Your task to perform on an android device: show emergency info Image 0: 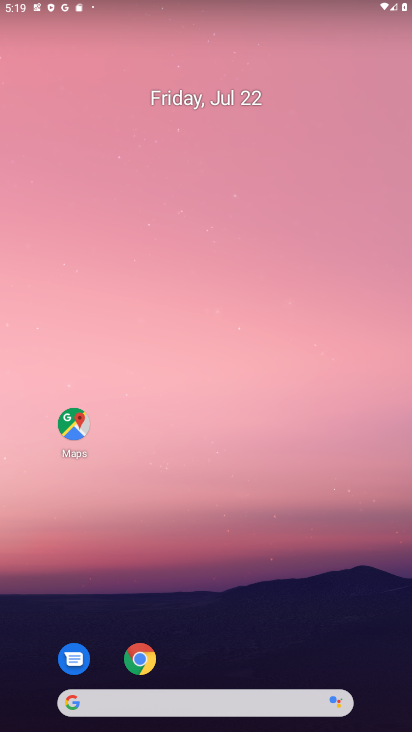
Step 0: press home button
Your task to perform on an android device: show emergency info Image 1: 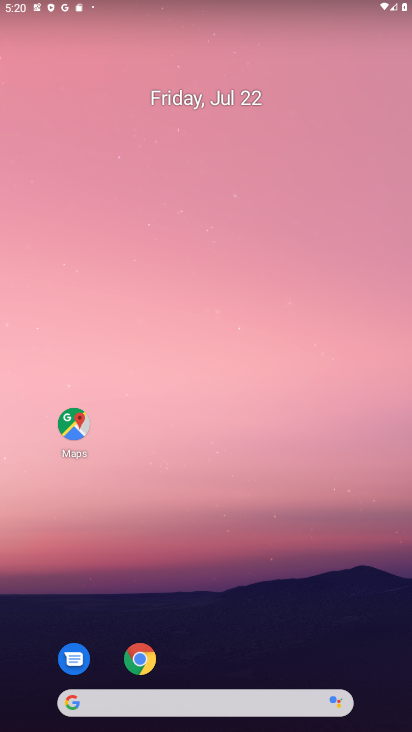
Step 1: drag from (212, 663) to (269, 69)
Your task to perform on an android device: show emergency info Image 2: 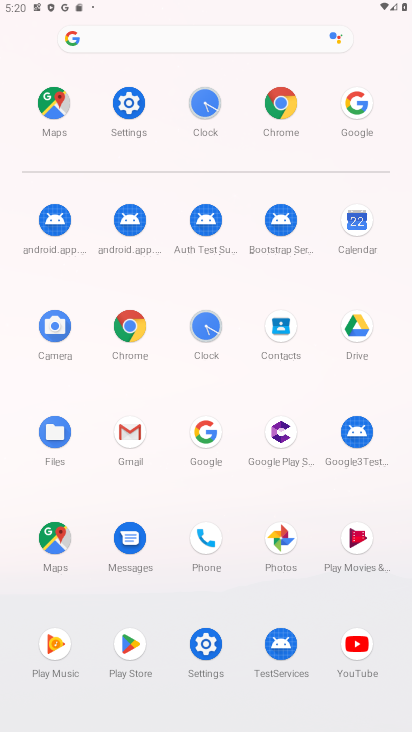
Step 2: click (200, 647)
Your task to perform on an android device: show emergency info Image 3: 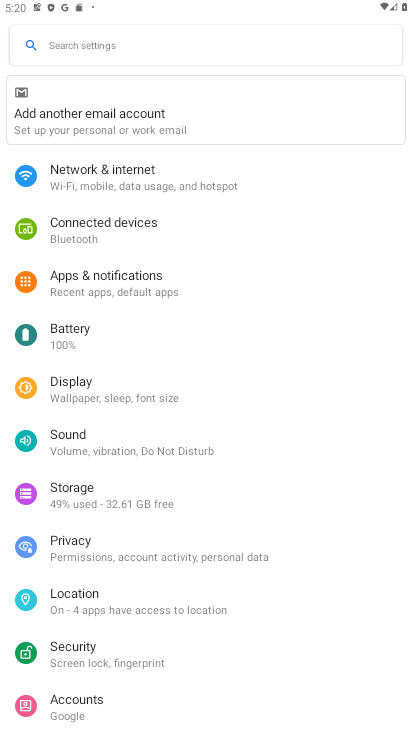
Step 3: drag from (165, 658) to (220, 240)
Your task to perform on an android device: show emergency info Image 4: 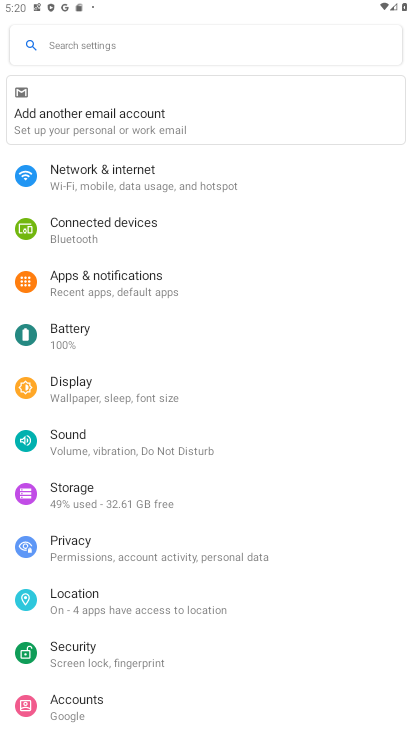
Step 4: drag from (164, 665) to (183, 203)
Your task to perform on an android device: show emergency info Image 5: 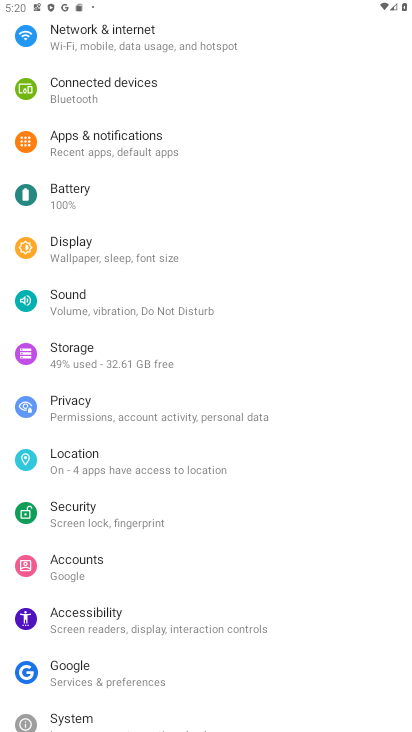
Step 5: drag from (126, 679) to (169, 226)
Your task to perform on an android device: show emergency info Image 6: 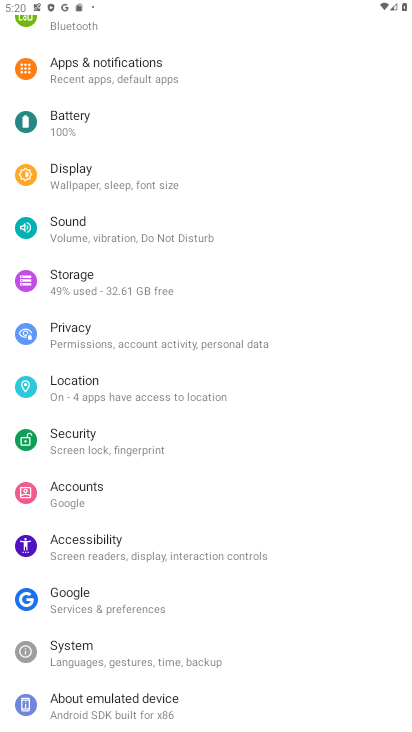
Step 6: click (141, 707)
Your task to perform on an android device: show emergency info Image 7: 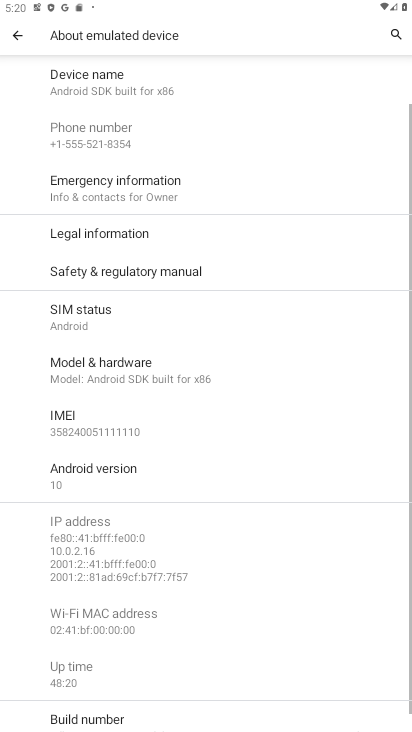
Step 7: click (183, 176)
Your task to perform on an android device: show emergency info Image 8: 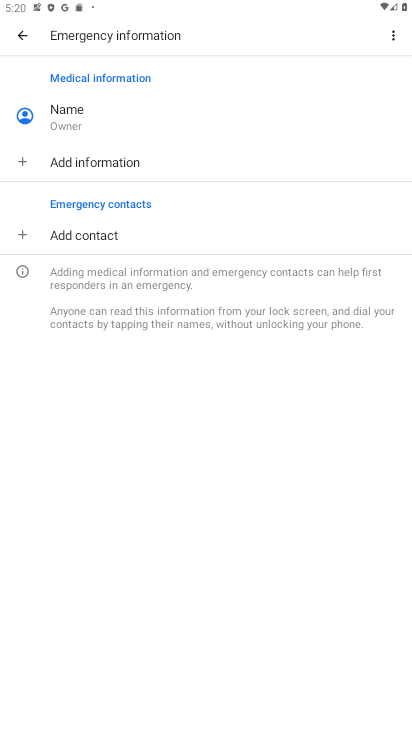
Step 8: task complete